Your task to perform on an android device: all mails in gmail Image 0: 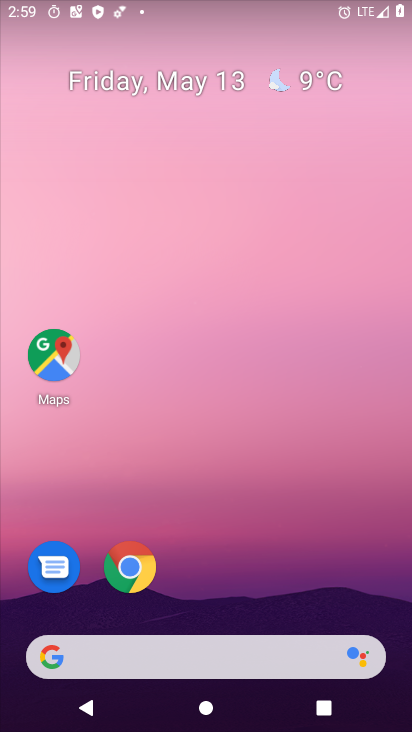
Step 0: drag from (217, 617) to (321, 34)
Your task to perform on an android device: all mails in gmail Image 1: 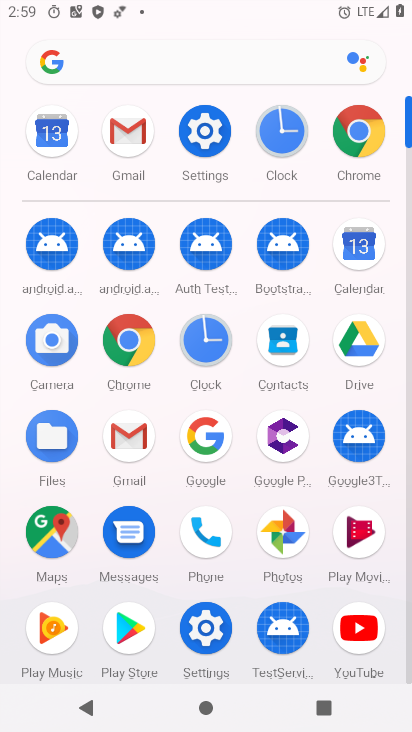
Step 1: click (120, 435)
Your task to perform on an android device: all mails in gmail Image 2: 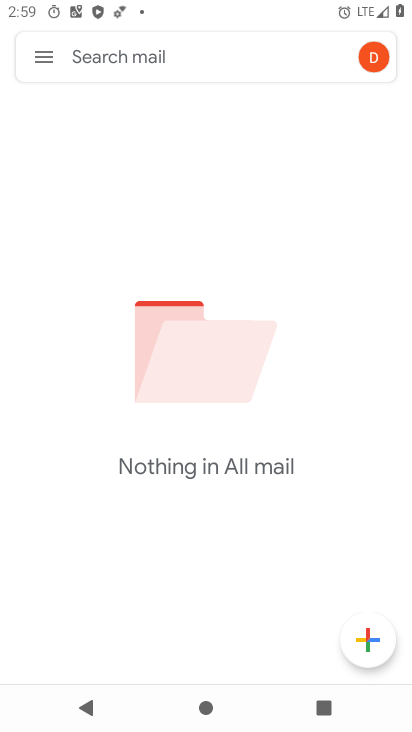
Step 2: task complete